Your task to perform on an android device: Turn off the flashlight Image 0: 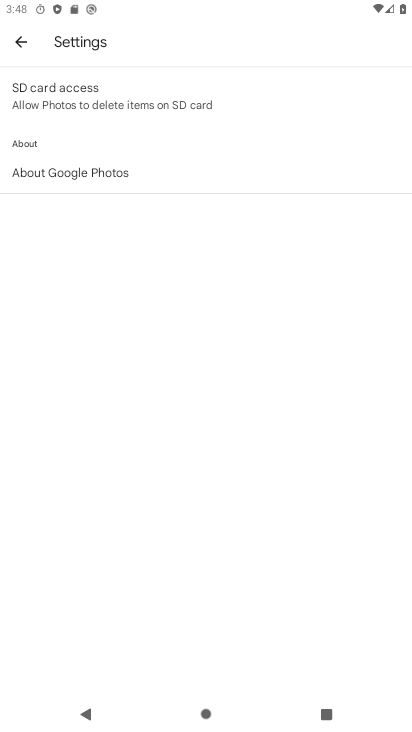
Step 0: press home button
Your task to perform on an android device: Turn off the flashlight Image 1: 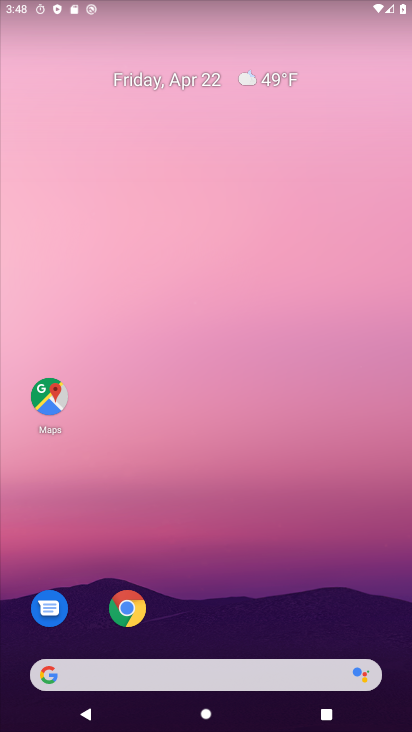
Step 1: drag from (258, 603) to (208, 80)
Your task to perform on an android device: Turn off the flashlight Image 2: 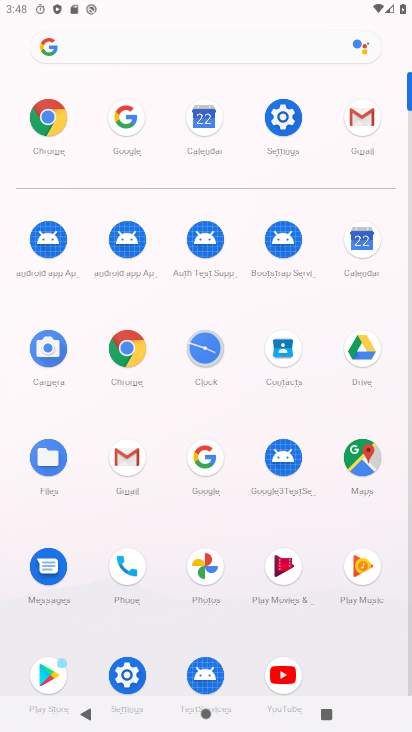
Step 2: click (293, 118)
Your task to perform on an android device: Turn off the flashlight Image 3: 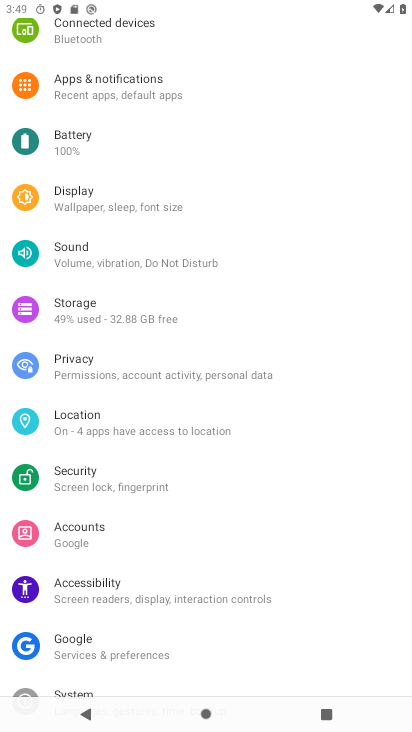
Step 3: click (114, 95)
Your task to perform on an android device: Turn off the flashlight Image 4: 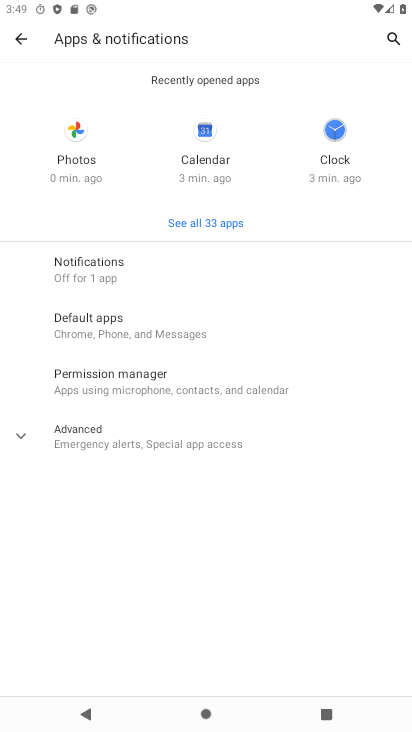
Step 4: task complete